Your task to perform on an android device: Check the news Image 0: 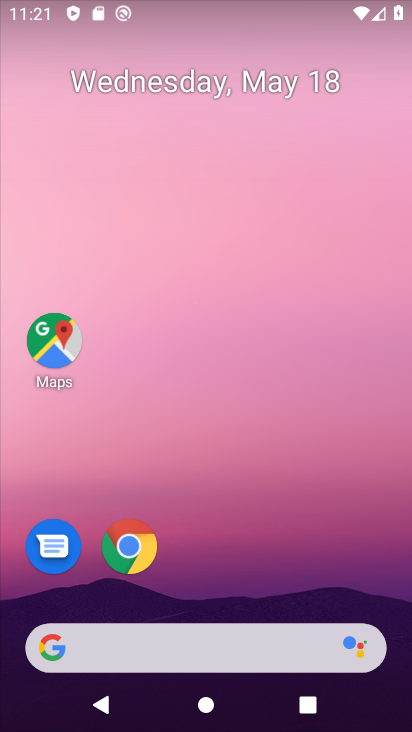
Step 0: drag from (396, 707) to (407, 293)
Your task to perform on an android device: Check the news Image 1: 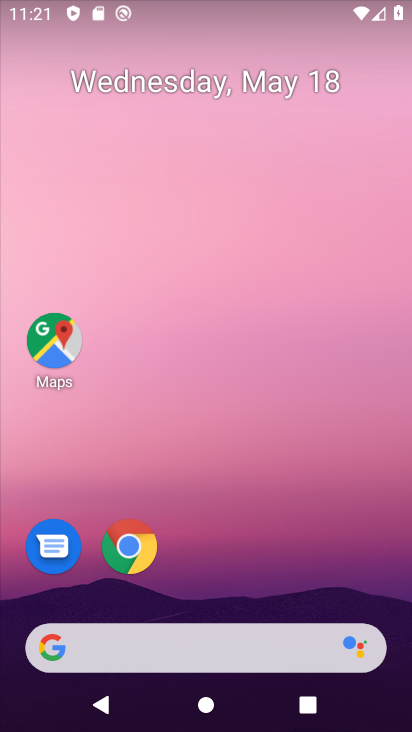
Step 1: task complete